Your task to perform on an android device: Go to wifi settings Image 0: 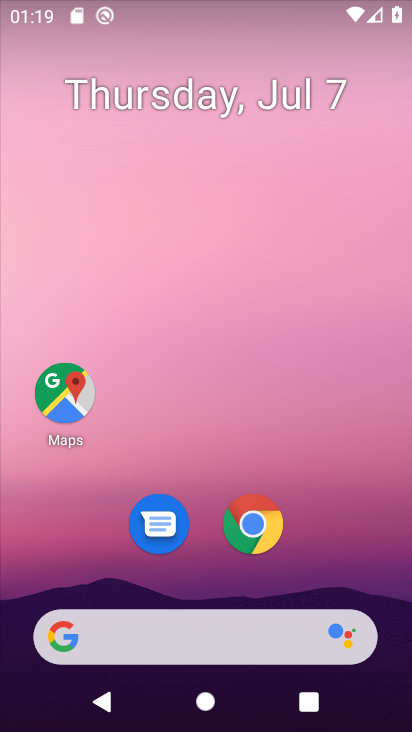
Step 0: drag from (283, 452) to (267, 39)
Your task to perform on an android device: Go to wifi settings Image 1: 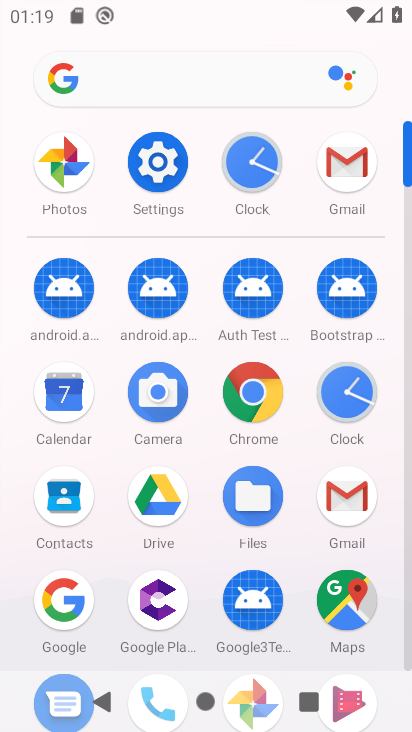
Step 1: click (157, 167)
Your task to perform on an android device: Go to wifi settings Image 2: 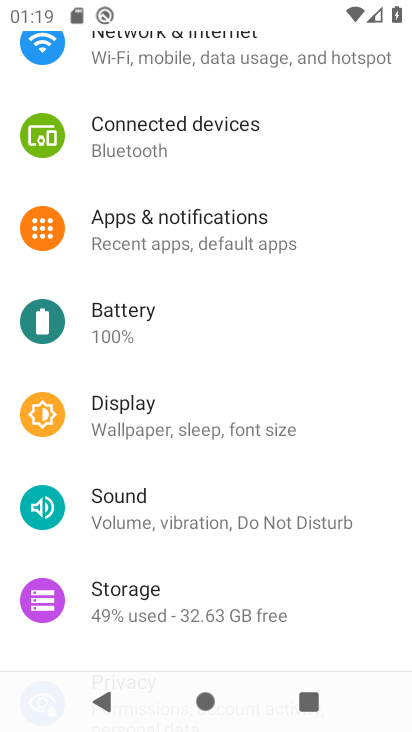
Step 2: drag from (217, 180) to (229, 377)
Your task to perform on an android device: Go to wifi settings Image 3: 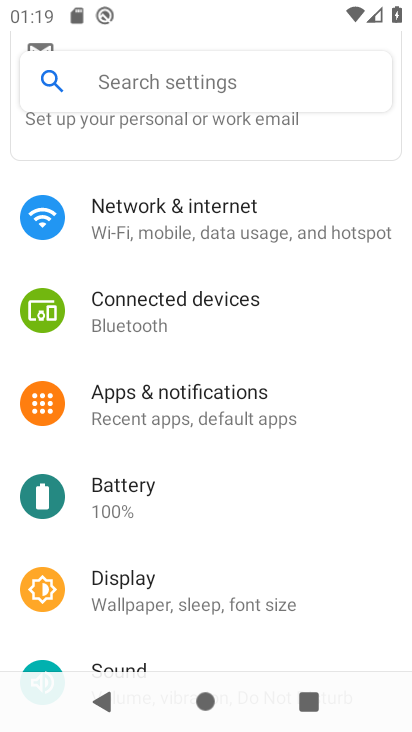
Step 3: click (242, 226)
Your task to perform on an android device: Go to wifi settings Image 4: 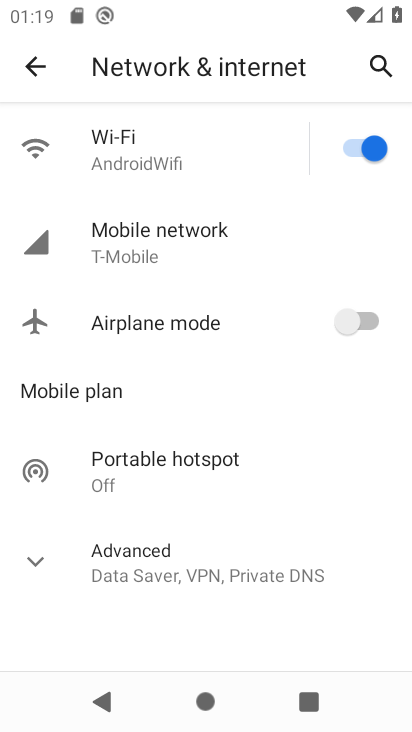
Step 4: click (182, 160)
Your task to perform on an android device: Go to wifi settings Image 5: 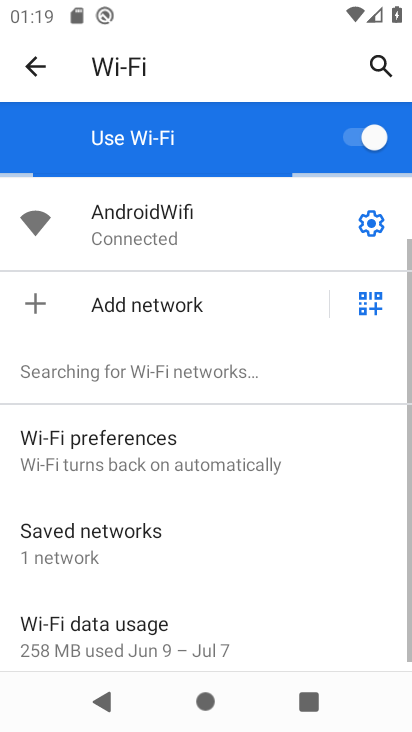
Step 5: task complete